Your task to perform on an android device: What's a good restaurant in Houston? Image 0: 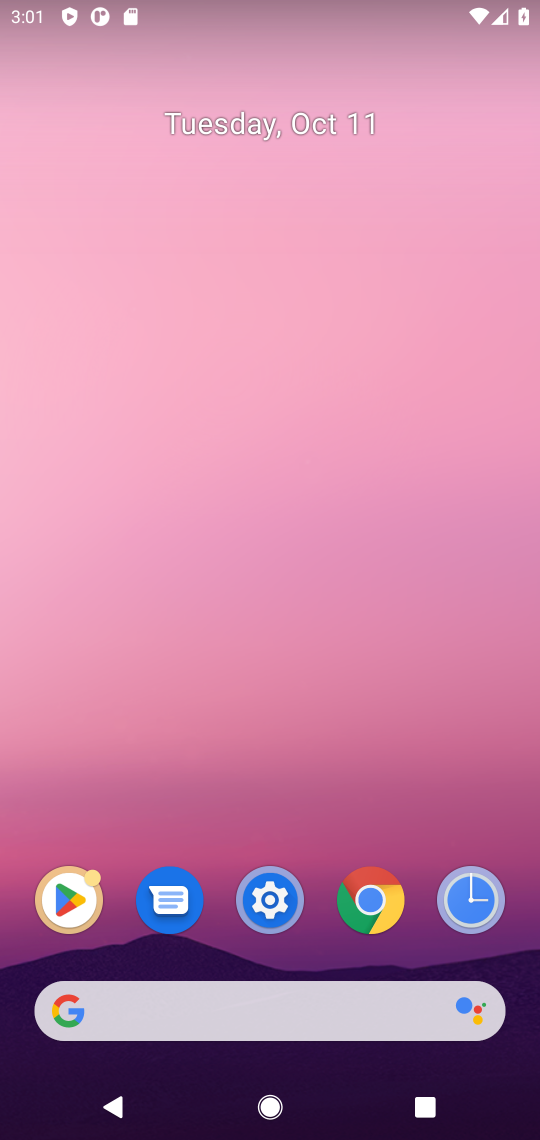
Step 0: click (350, 995)
Your task to perform on an android device: What's a good restaurant in Houston? Image 1: 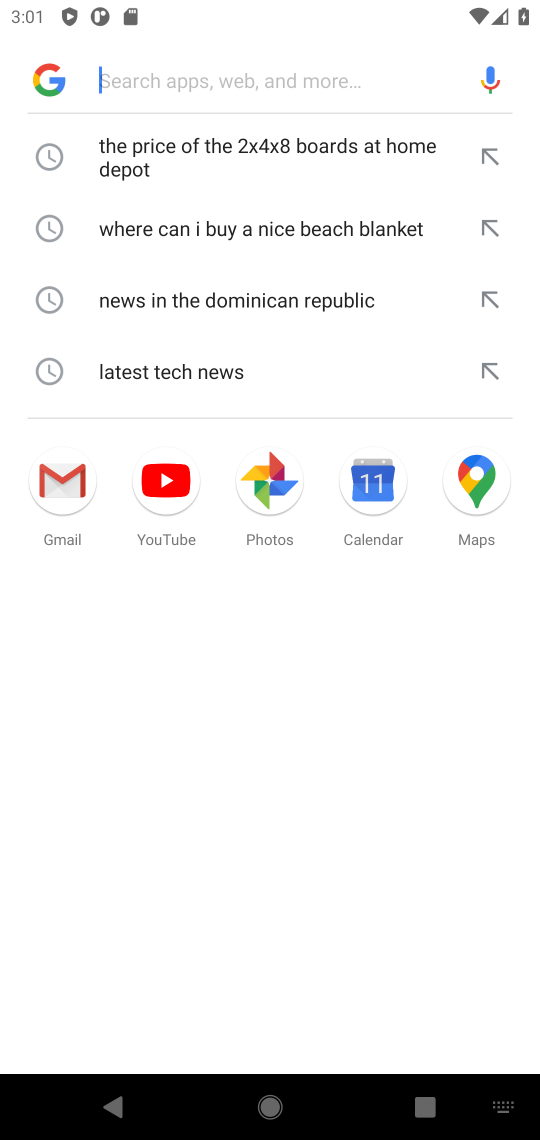
Step 1: type "good restaurant in Houston"
Your task to perform on an android device: What's a good restaurant in Houston? Image 2: 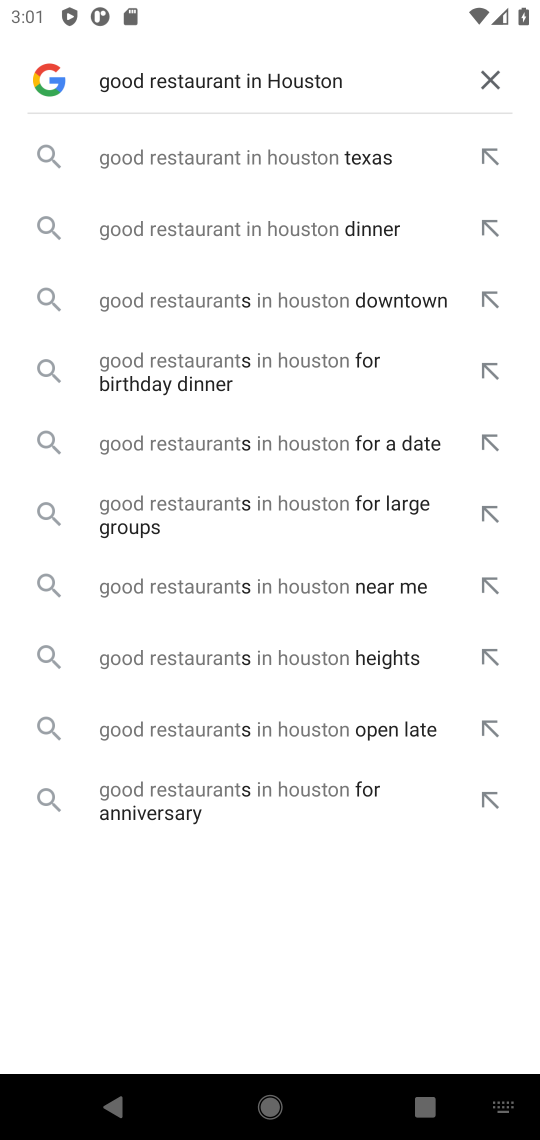
Step 2: press enter
Your task to perform on an android device: What's a good restaurant in Houston? Image 3: 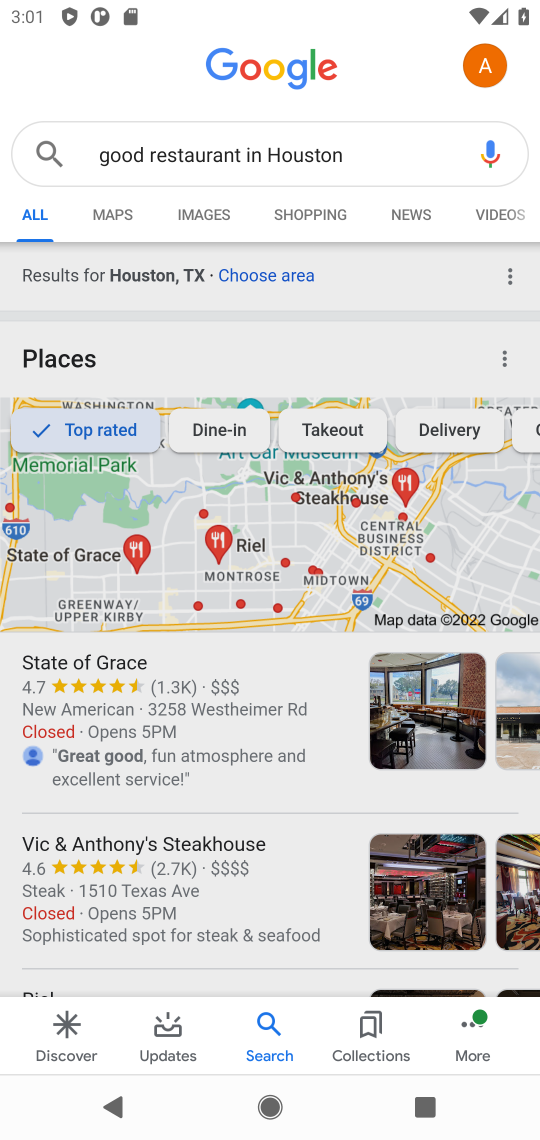
Step 3: drag from (292, 912) to (312, 591)
Your task to perform on an android device: What's a good restaurant in Houston? Image 4: 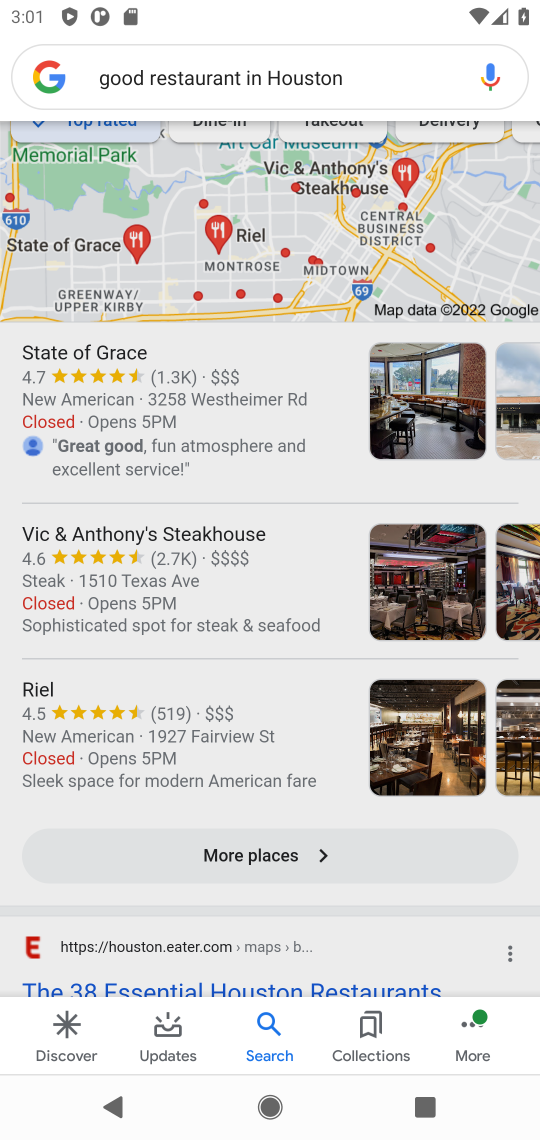
Step 4: click (270, 852)
Your task to perform on an android device: What's a good restaurant in Houston? Image 5: 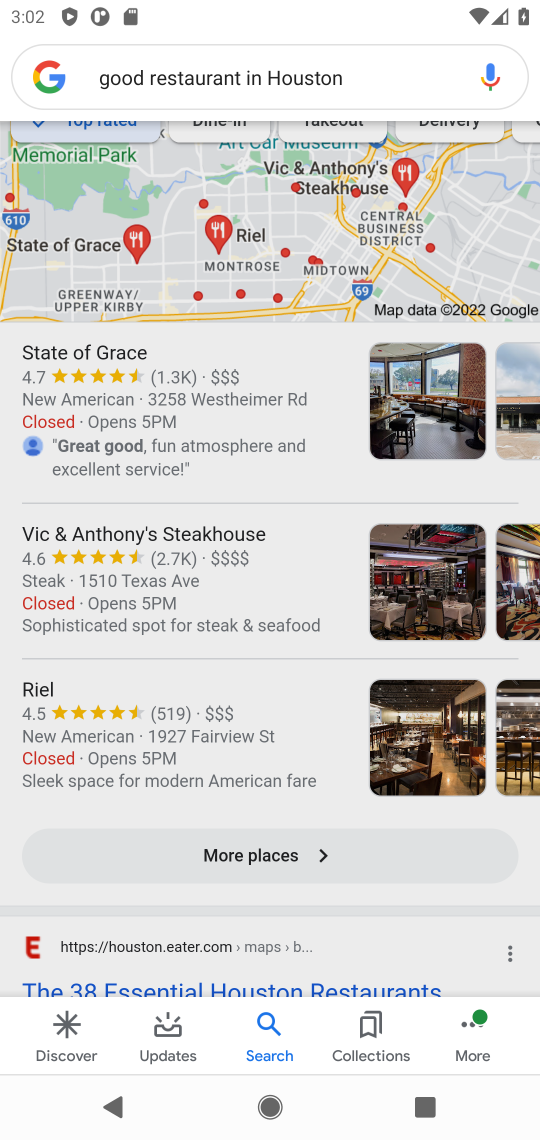
Step 5: drag from (274, 762) to (339, 78)
Your task to perform on an android device: What's a good restaurant in Houston? Image 6: 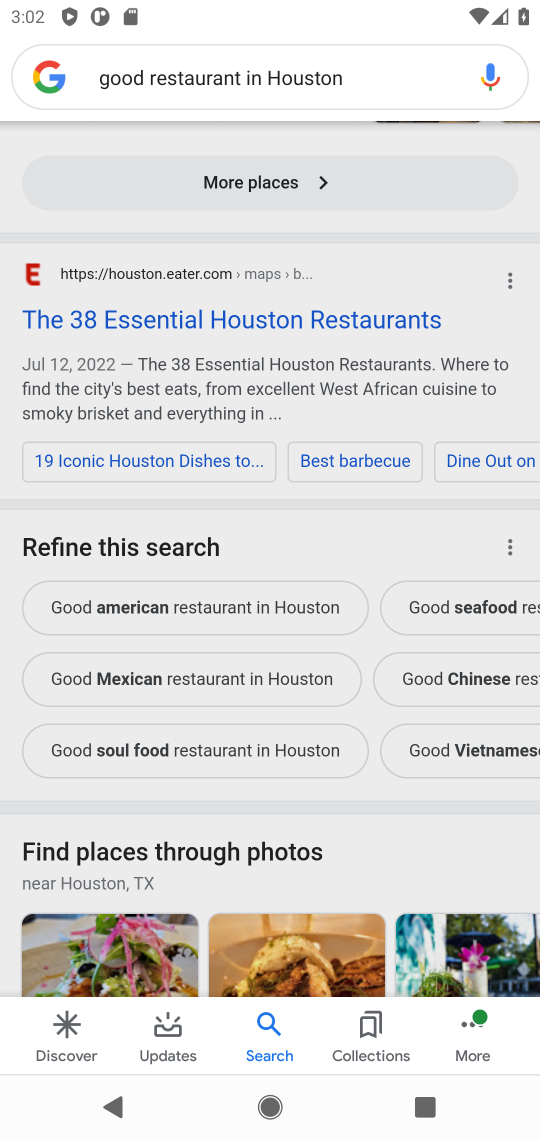
Step 6: drag from (379, 844) to (358, 287)
Your task to perform on an android device: What's a good restaurant in Houston? Image 7: 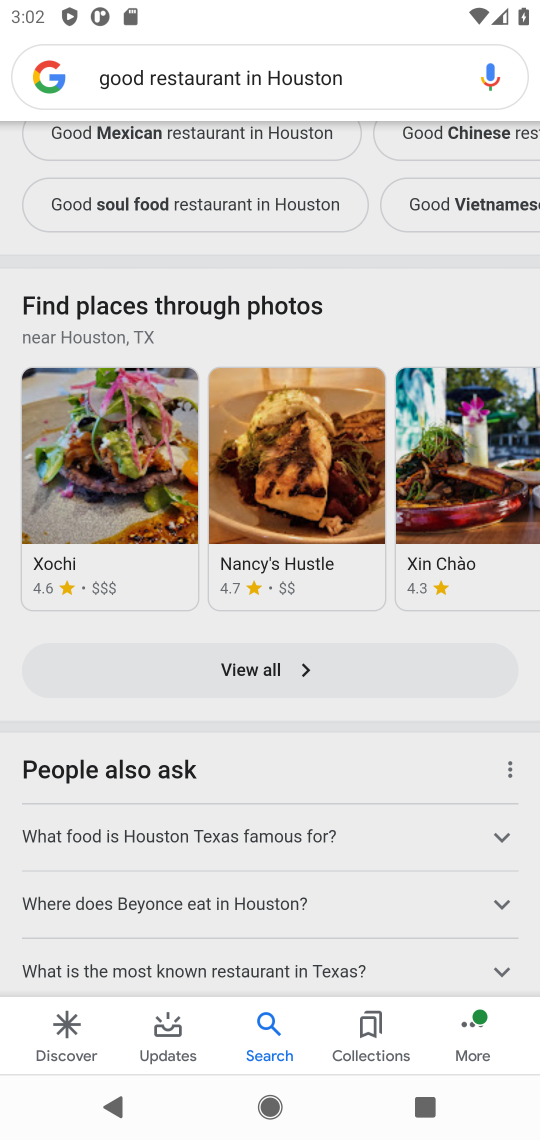
Step 7: drag from (365, 941) to (380, 591)
Your task to perform on an android device: What's a good restaurant in Houston? Image 8: 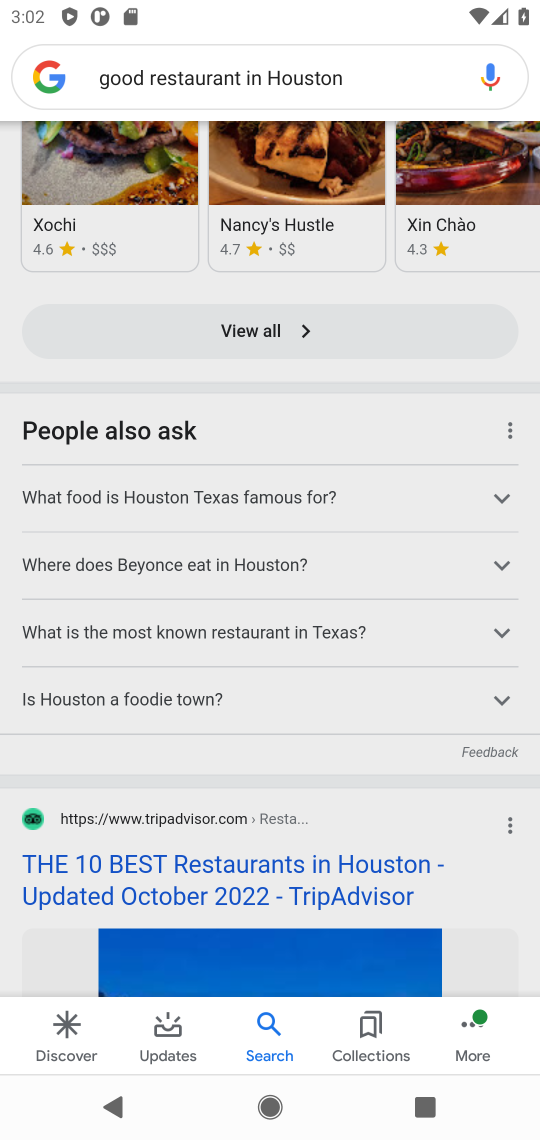
Step 8: click (213, 889)
Your task to perform on an android device: What's a good restaurant in Houston? Image 9: 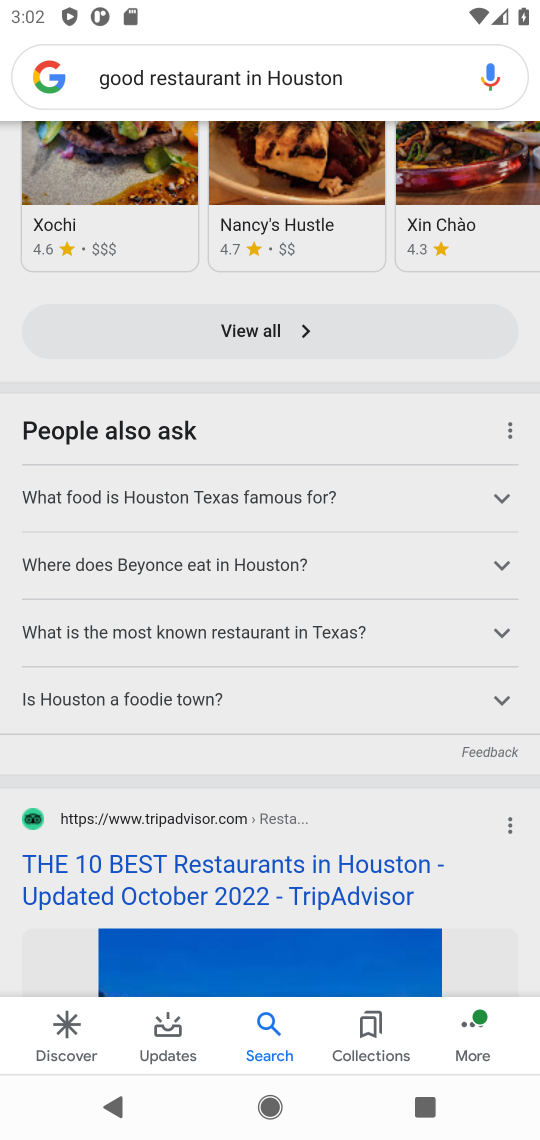
Step 9: click (213, 889)
Your task to perform on an android device: What's a good restaurant in Houston? Image 10: 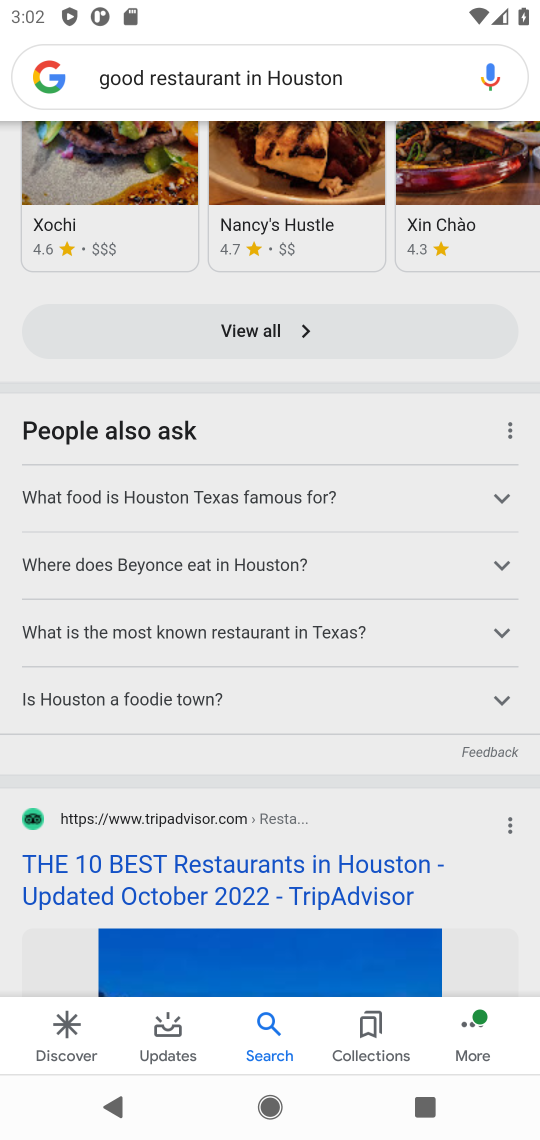
Step 10: click (285, 798)
Your task to perform on an android device: What's a good restaurant in Houston? Image 11: 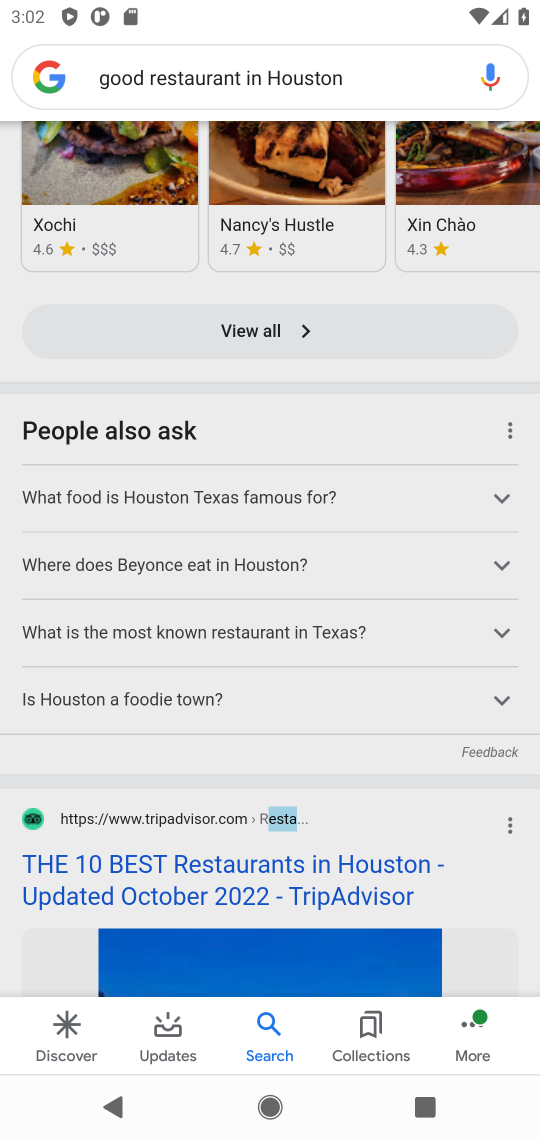
Step 11: click (335, 709)
Your task to perform on an android device: What's a good restaurant in Houston? Image 12: 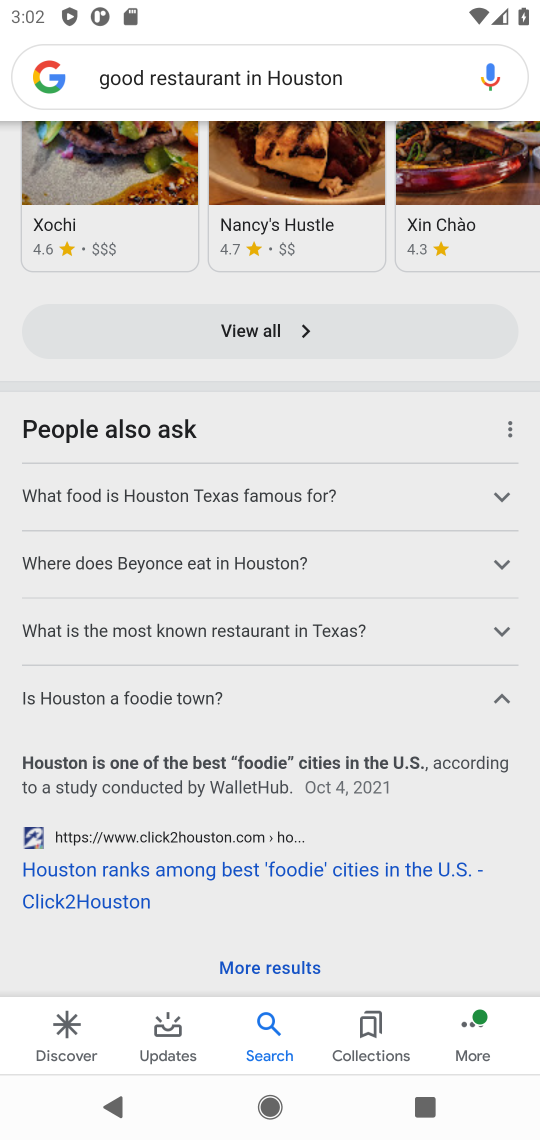
Step 12: click (473, 888)
Your task to perform on an android device: What's a good restaurant in Houston? Image 13: 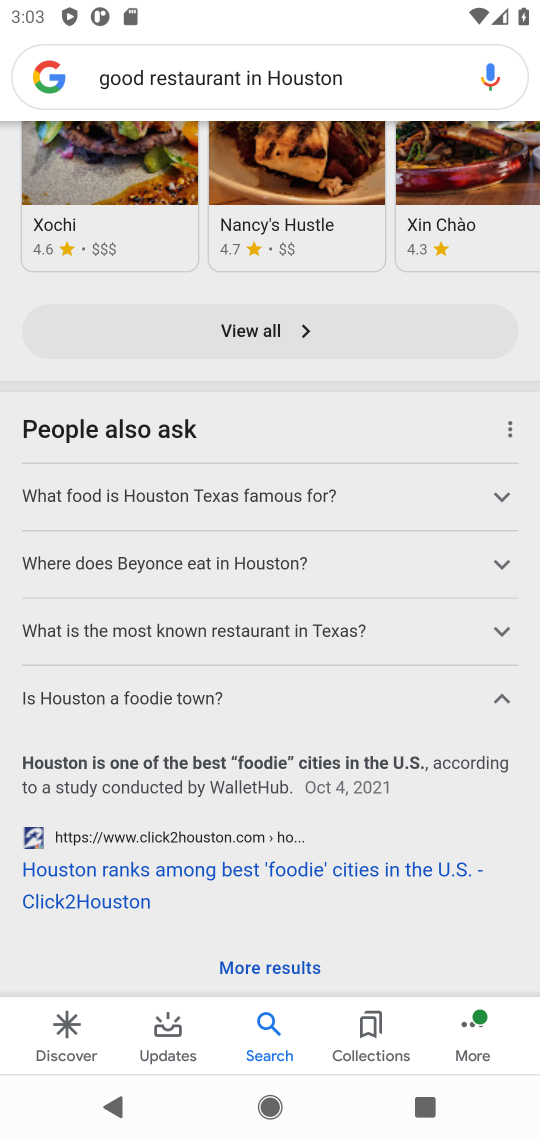
Step 13: click (407, 869)
Your task to perform on an android device: What's a good restaurant in Houston? Image 14: 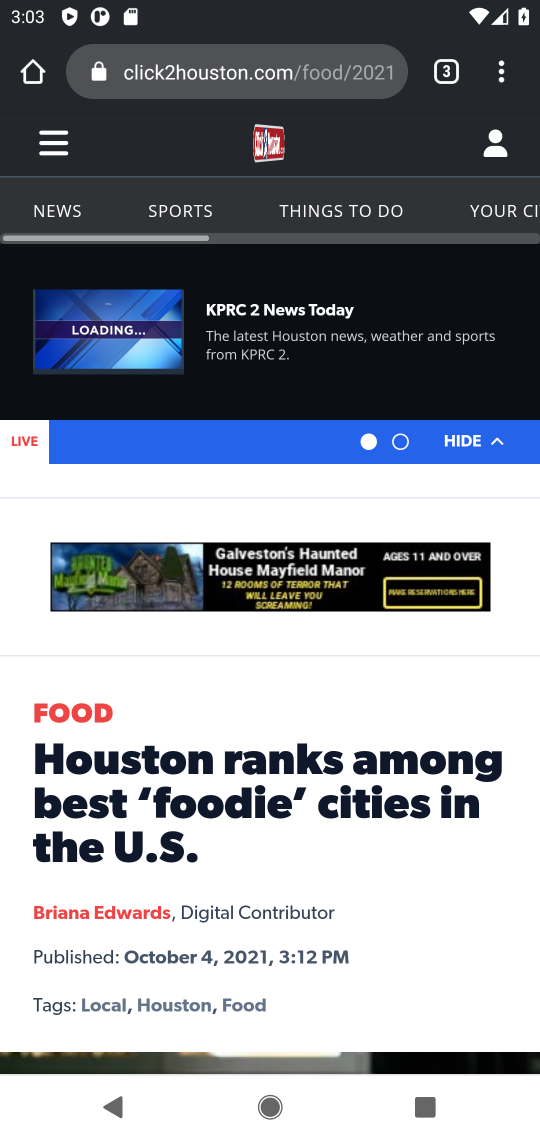
Step 14: task complete